Your task to perform on an android device: Open the Play Movies app and select the watchlist tab. Image 0: 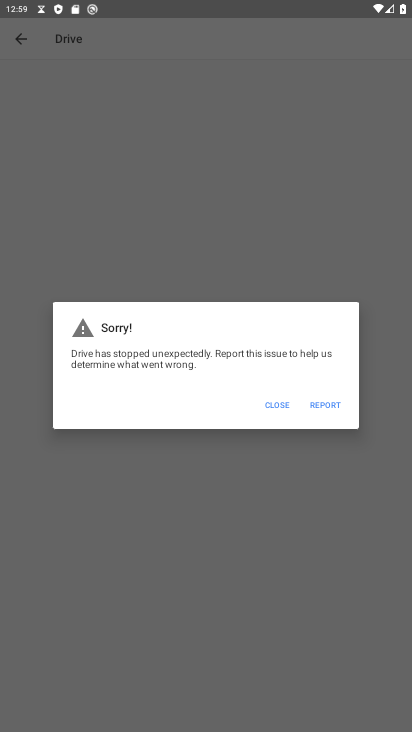
Step 0: press home button
Your task to perform on an android device: Open the Play Movies app and select the watchlist tab. Image 1: 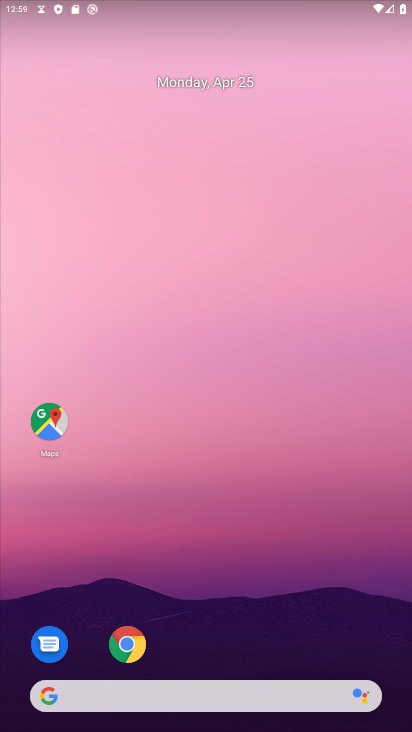
Step 1: drag from (320, 325) to (327, 29)
Your task to perform on an android device: Open the Play Movies app and select the watchlist tab. Image 2: 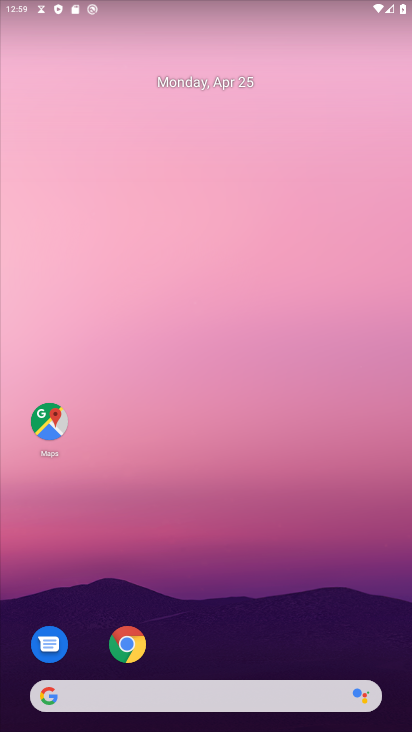
Step 2: drag from (300, 669) to (353, 12)
Your task to perform on an android device: Open the Play Movies app and select the watchlist tab. Image 3: 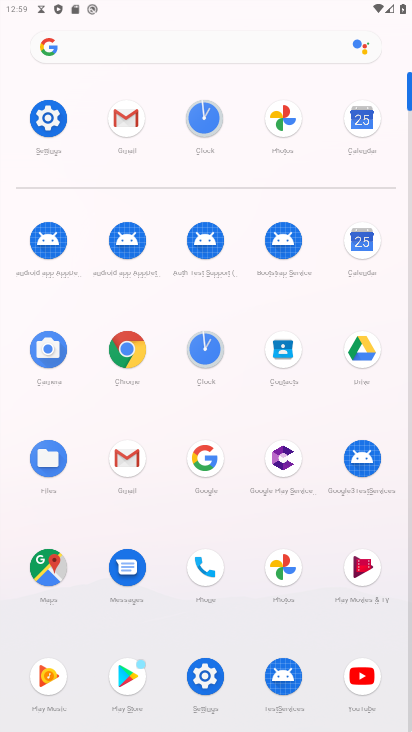
Step 3: click (360, 577)
Your task to perform on an android device: Open the Play Movies app and select the watchlist tab. Image 4: 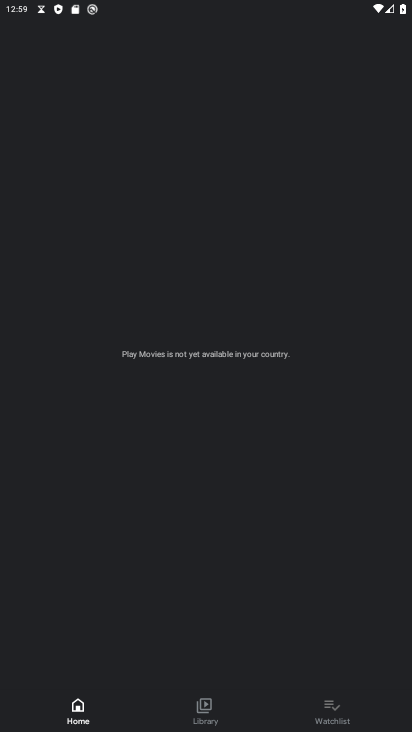
Step 4: click (331, 723)
Your task to perform on an android device: Open the Play Movies app and select the watchlist tab. Image 5: 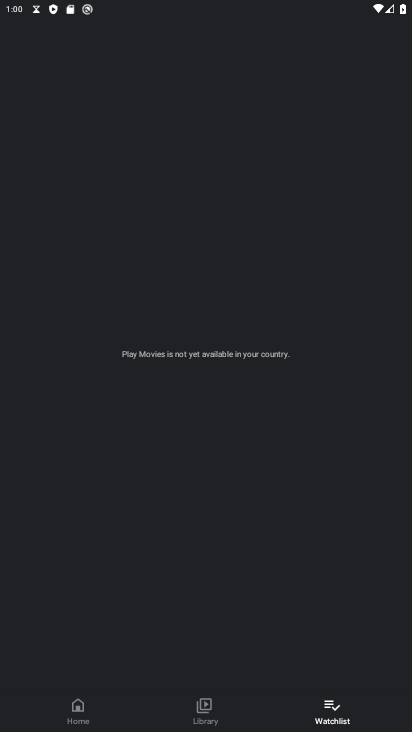
Step 5: task complete